Your task to perform on an android device: Open settings Image 0: 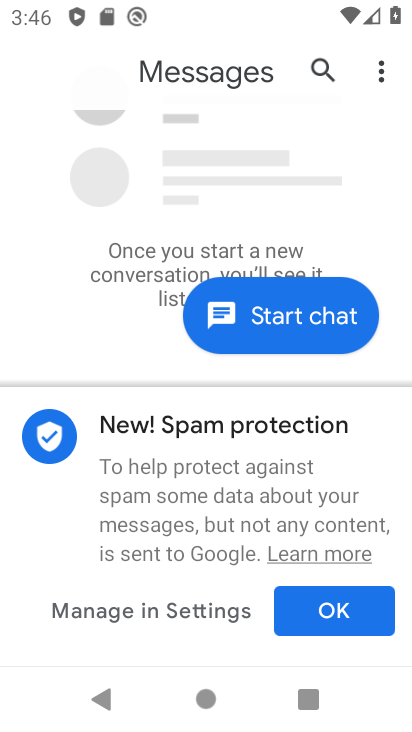
Step 0: press back button
Your task to perform on an android device: Open settings Image 1: 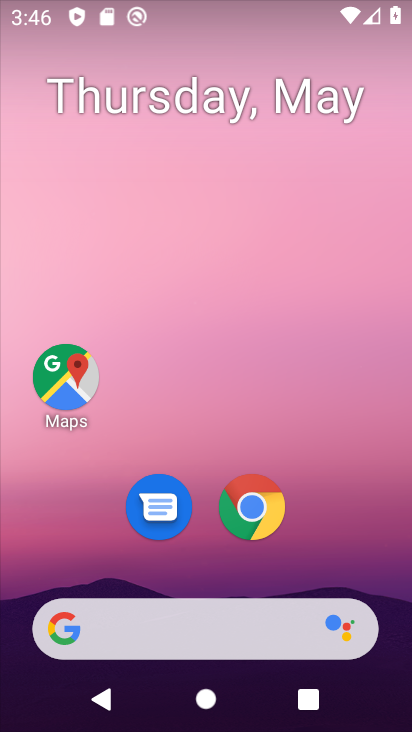
Step 1: drag from (381, 633) to (301, 341)
Your task to perform on an android device: Open settings Image 2: 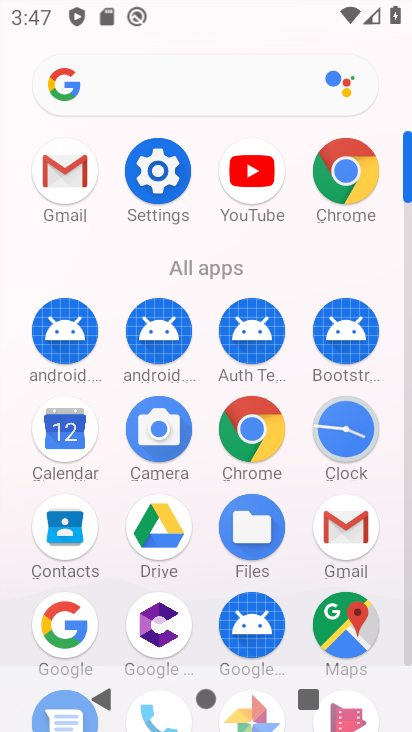
Step 2: click (160, 183)
Your task to perform on an android device: Open settings Image 3: 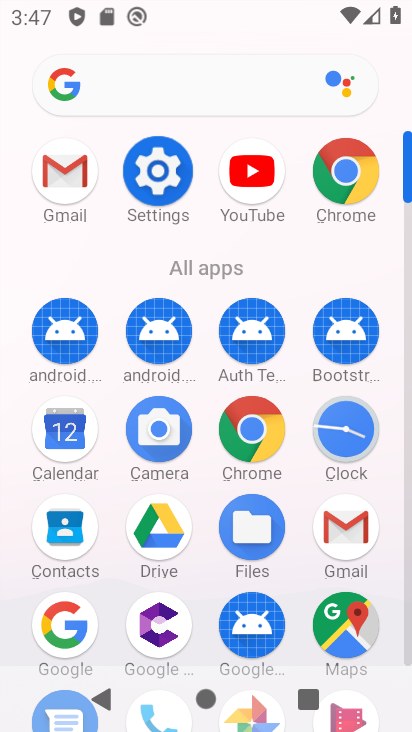
Step 3: click (160, 183)
Your task to perform on an android device: Open settings Image 4: 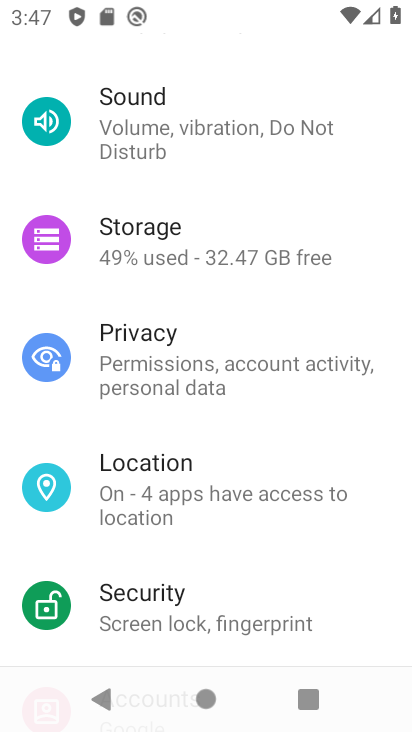
Step 4: task complete